Your task to perform on an android device: Add "acer nitro" to the cart on bestbuy Image 0: 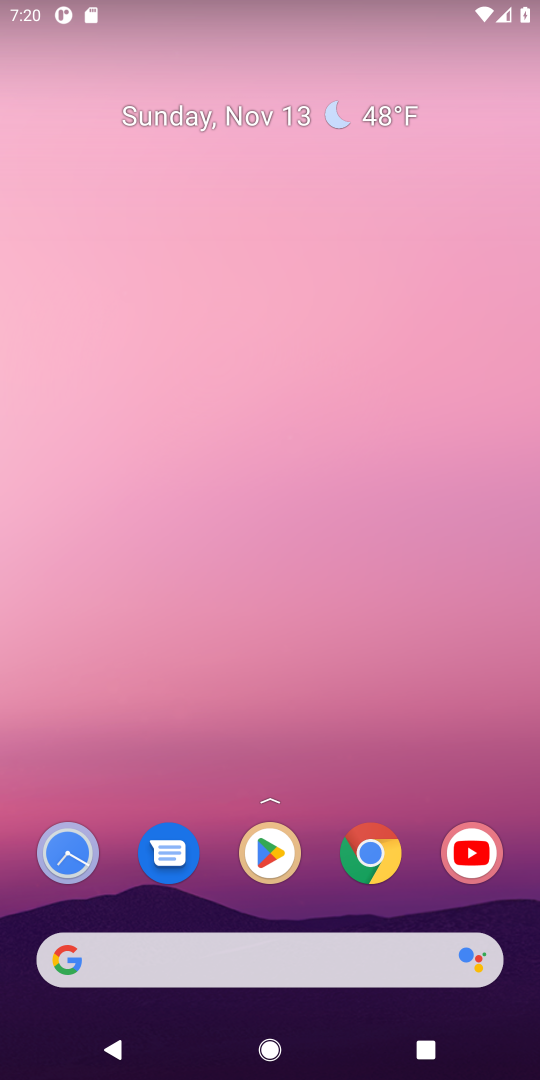
Step 0: click (114, 953)
Your task to perform on an android device: Add "acer nitro" to the cart on bestbuy Image 1: 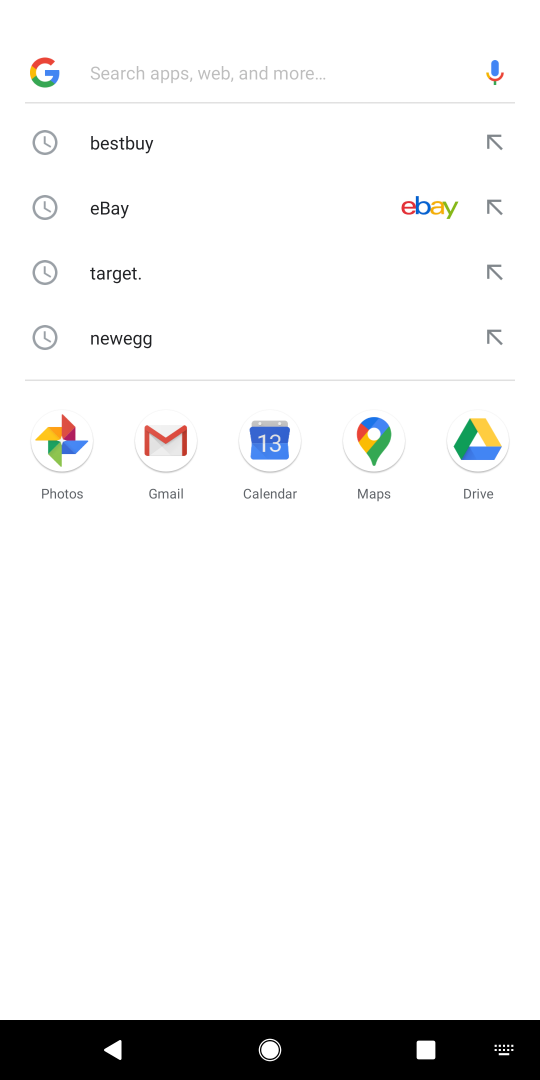
Step 1: type "bestbuy"
Your task to perform on an android device: Add "acer nitro" to the cart on bestbuy Image 2: 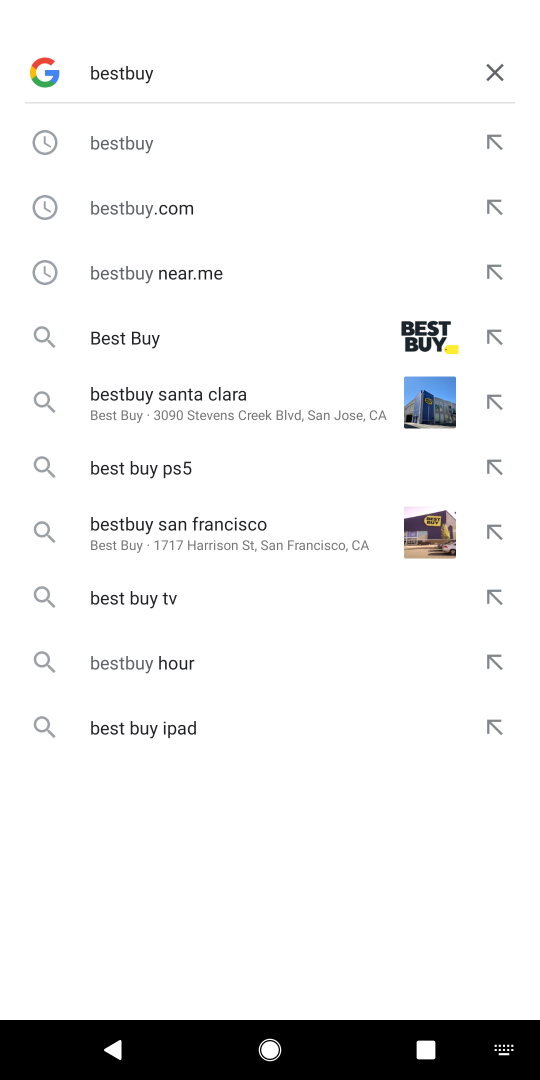
Step 2: press enter
Your task to perform on an android device: Add "acer nitro" to the cart on bestbuy Image 3: 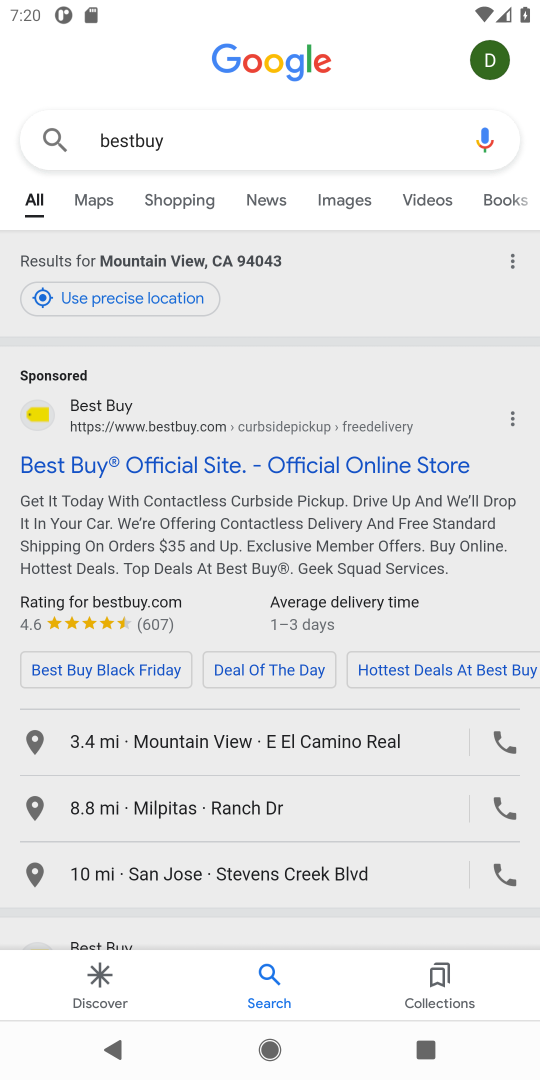
Step 3: click (157, 463)
Your task to perform on an android device: Add "acer nitro" to the cart on bestbuy Image 4: 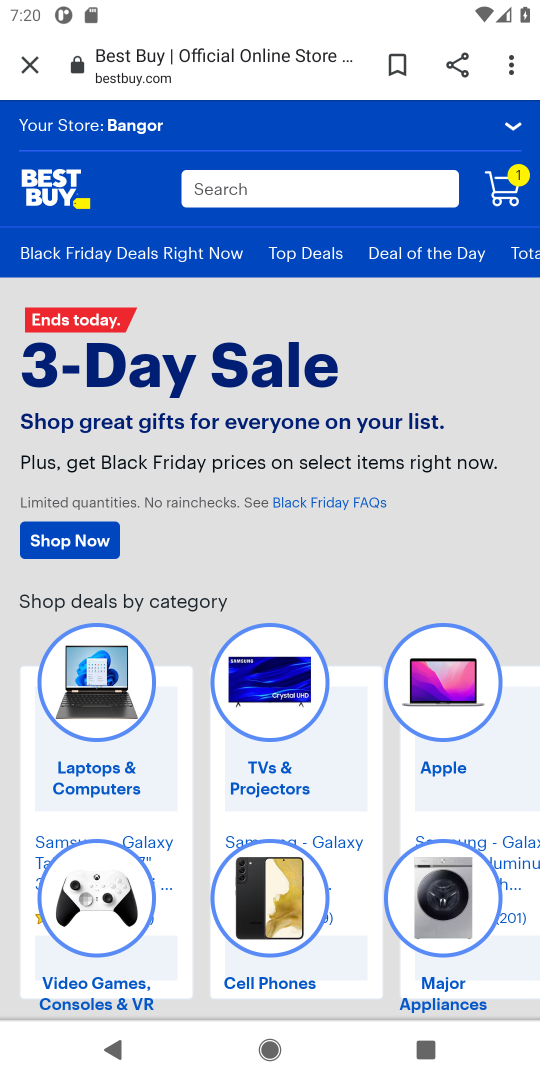
Step 4: click (229, 190)
Your task to perform on an android device: Add "acer nitro" to the cart on bestbuy Image 5: 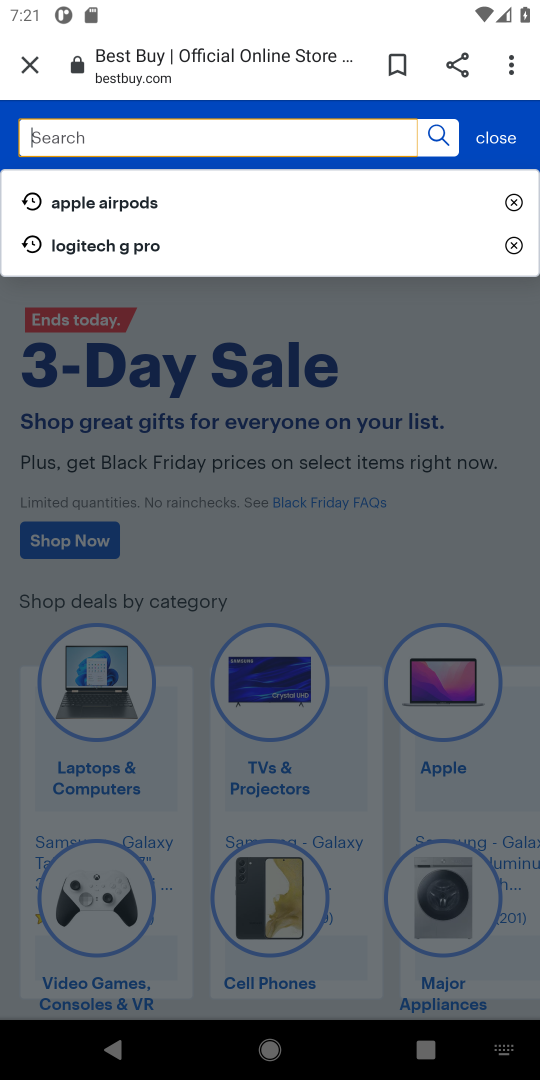
Step 5: type "acer nitro"
Your task to perform on an android device: Add "acer nitro" to the cart on bestbuy Image 6: 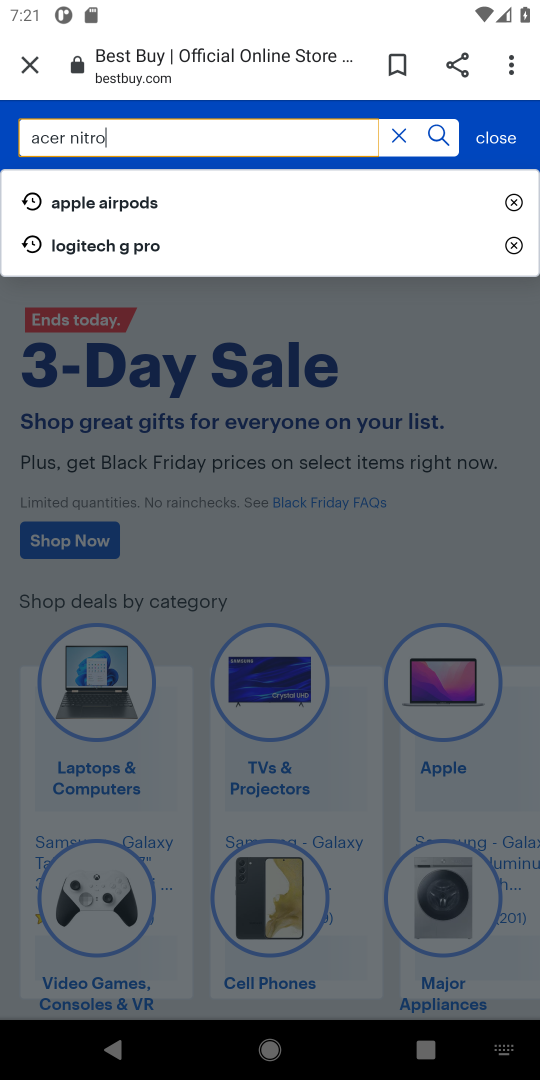
Step 6: press enter
Your task to perform on an android device: Add "acer nitro" to the cart on bestbuy Image 7: 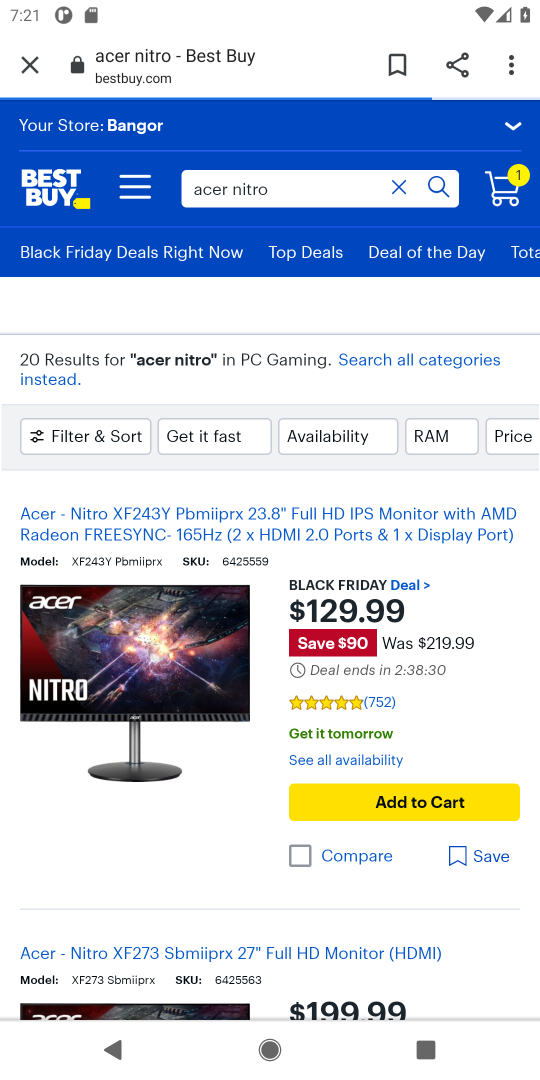
Step 7: click (425, 805)
Your task to perform on an android device: Add "acer nitro" to the cart on bestbuy Image 8: 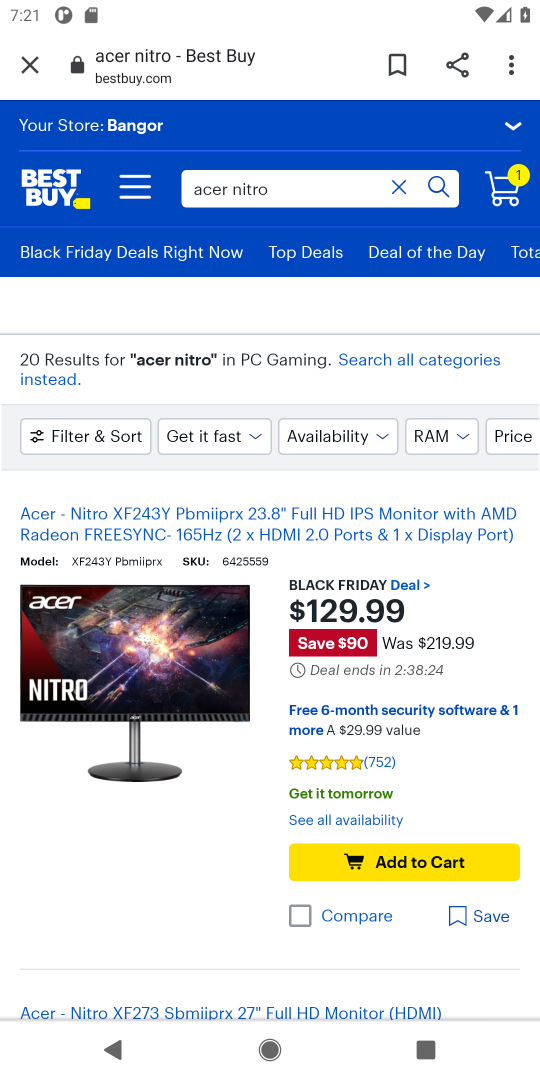
Step 8: click (404, 862)
Your task to perform on an android device: Add "acer nitro" to the cart on bestbuy Image 9: 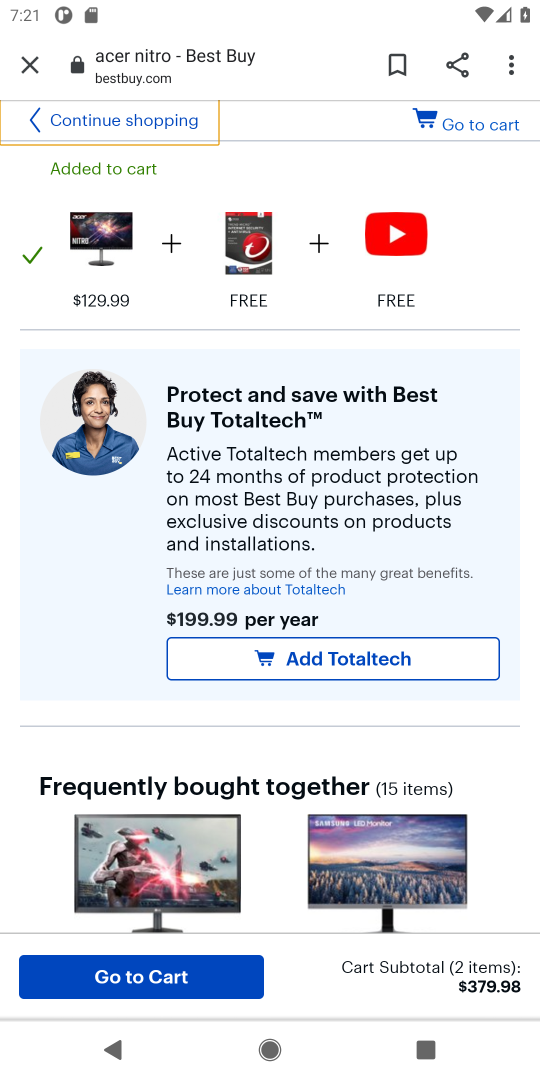
Step 9: task complete